Your task to perform on an android device: check out phone information Image 0: 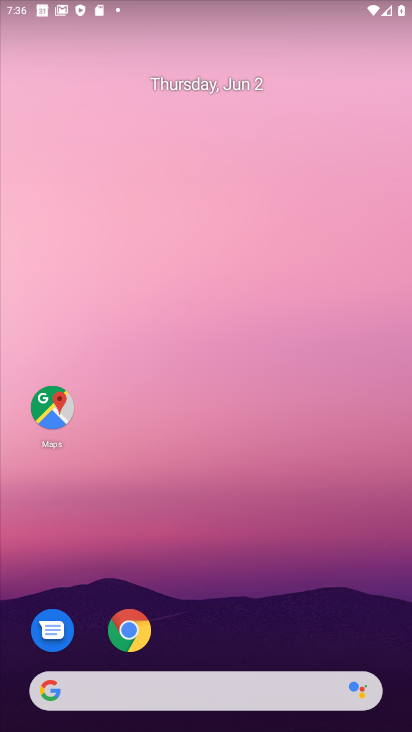
Step 0: drag from (135, 729) to (85, 16)
Your task to perform on an android device: check out phone information Image 1: 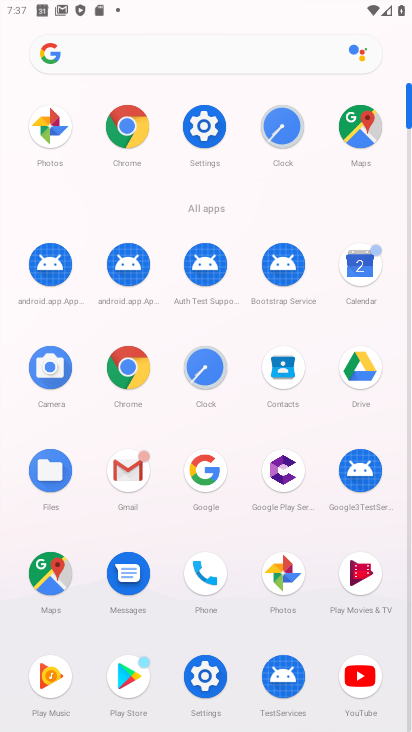
Step 1: click (216, 697)
Your task to perform on an android device: check out phone information Image 2: 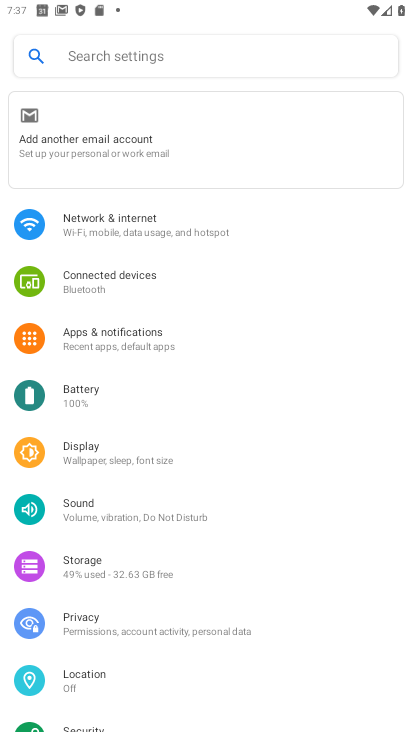
Step 2: drag from (180, 691) to (238, 32)
Your task to perform on an android device: check out phone information Image 3: 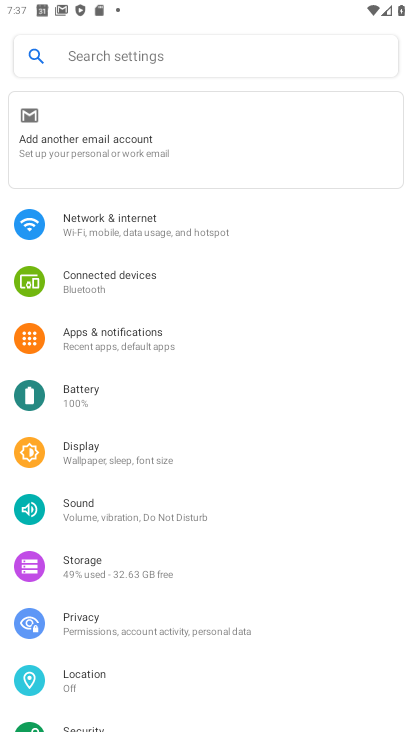
Step 3: drag from (133, 696) to (221, 61)
Your task to perform on an android device: check out phone information Image 4: 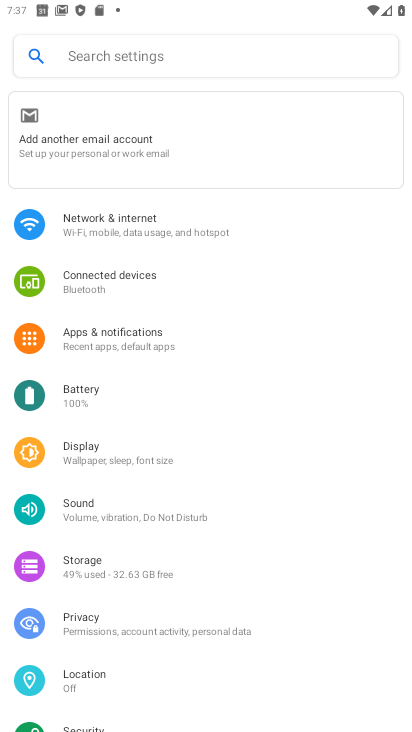
Step 4: drag from (191, 713) to (253, 150)
Your task to perform on an android device: check out phone information Image 5: 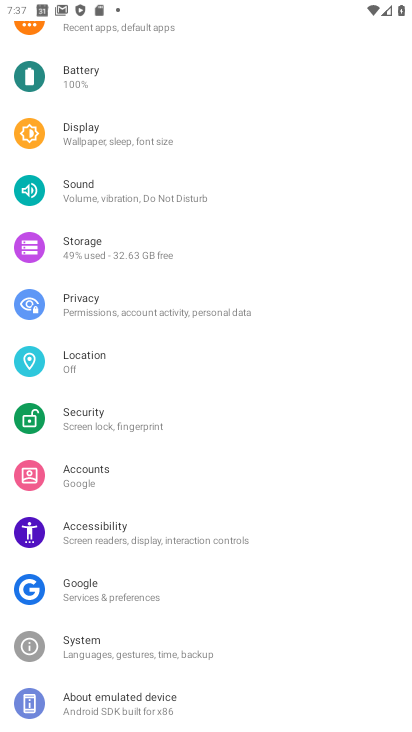
Step 5: click (137, 706)
Your task to perform on an android device: check out phone information Image 6: 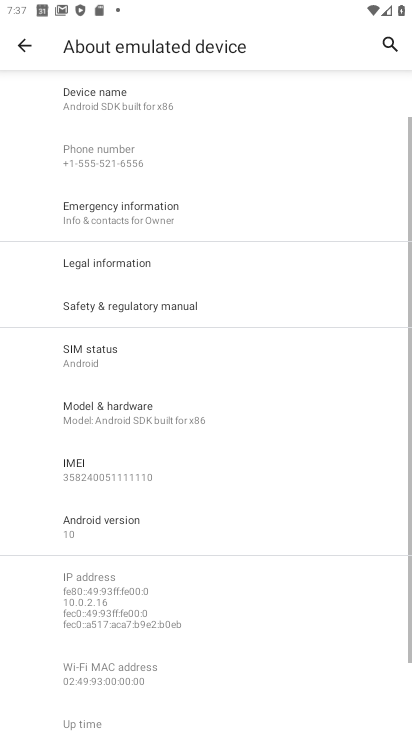
Step 6: drag from (199, 674) to (215, 276)
Your task to perform on an android device: check out phone information Image 7: 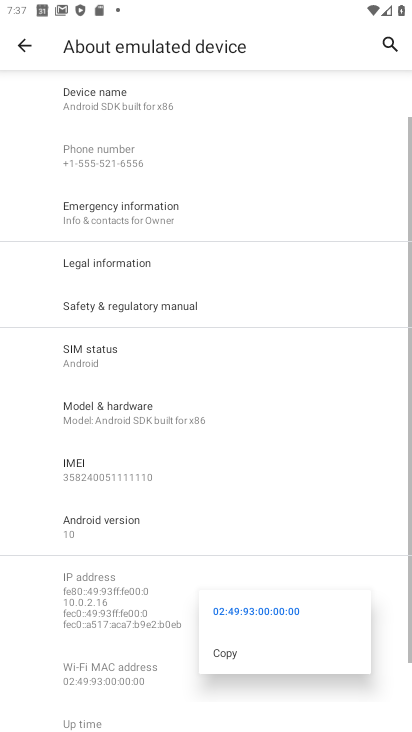
Step 7: click (381, 571)
Your task to perform on an android device: check out phone information Image 8: 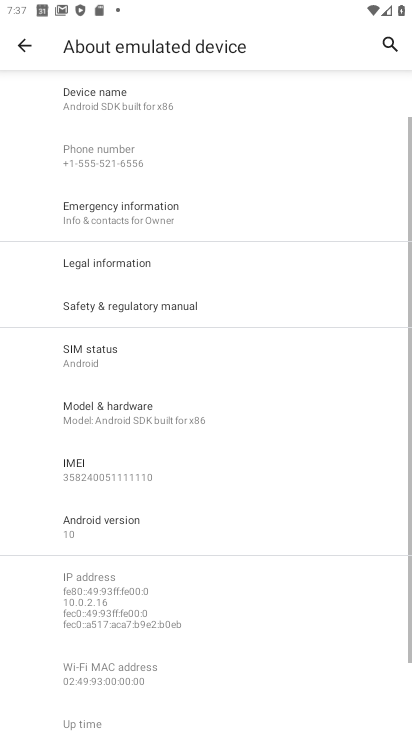
Step 8: task complete